Your task to perform on an android device: delete location history Image 0: 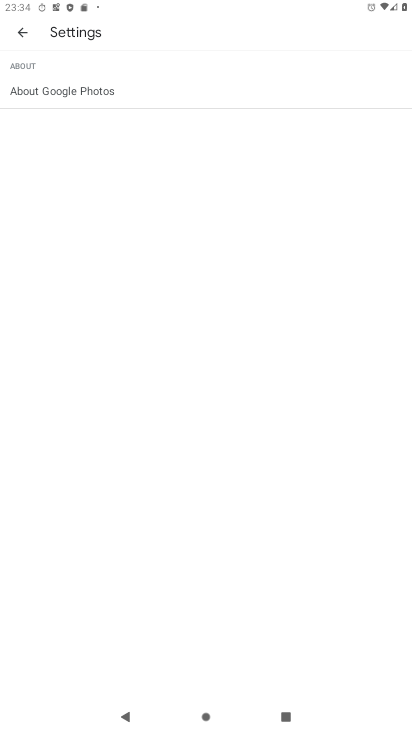
Step 0: press home button
Your task to perform on an android device: delete location history Image 1: 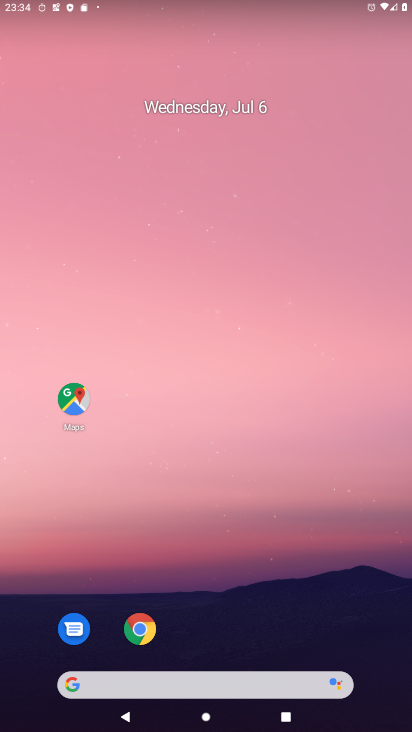
Step 1: drag from (236, 657) to (305, 32)
Your task to perform on an android device: delete location history Image 2: 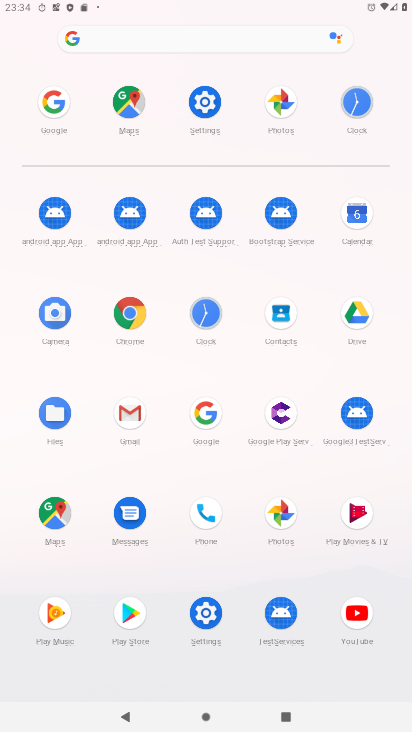
Step 2: click (204, 102)
Your task to perform on an android device: delete location history Image 3: 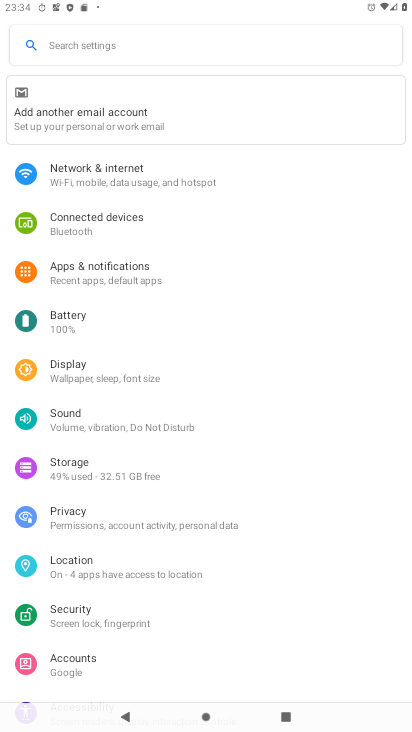
Step 3: click (146, 565)
Your task to perform on an android device: delete location history Image 4: 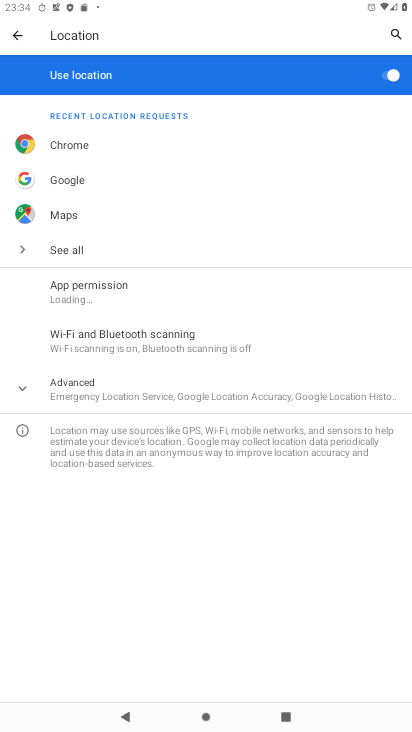
Step 4: click (98, 391)
Your task to perform on an android device: delete location history Image 5: 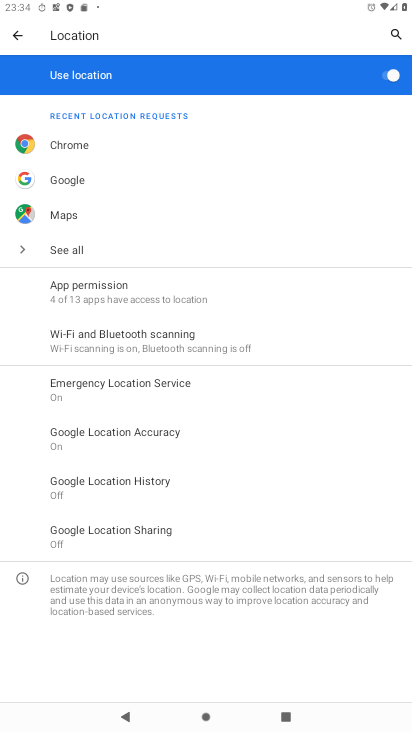
Step 5: click (144, 481)
Your task to perform on an android device: delete location history Image 6: 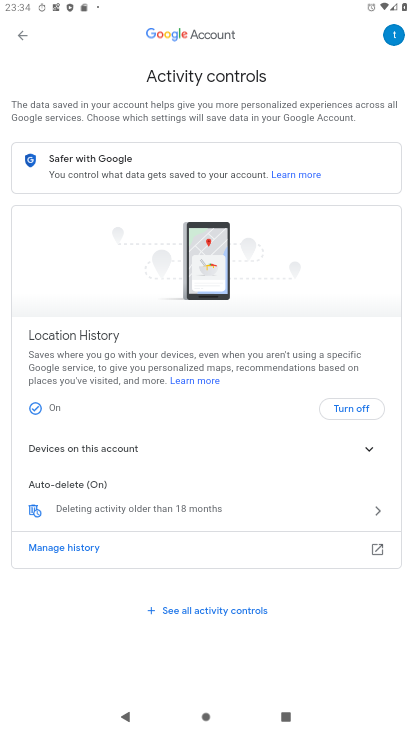
Step 6: click (31, 507)
Your task to perform on an android device: delete location history Image 7: 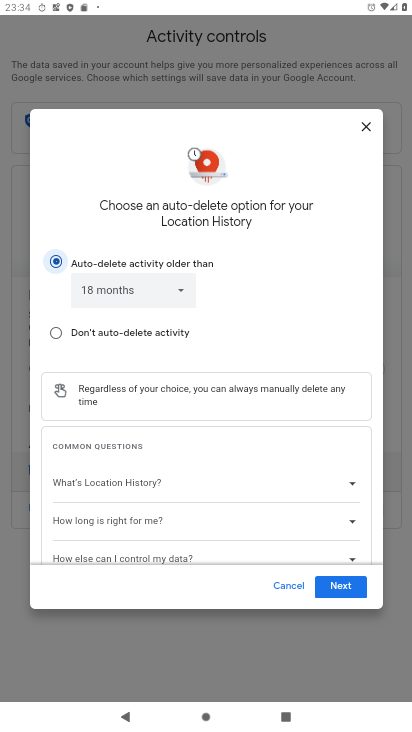
Step 7: click (336, 585)
Your task to perform on an android device: delete location history Image 8: 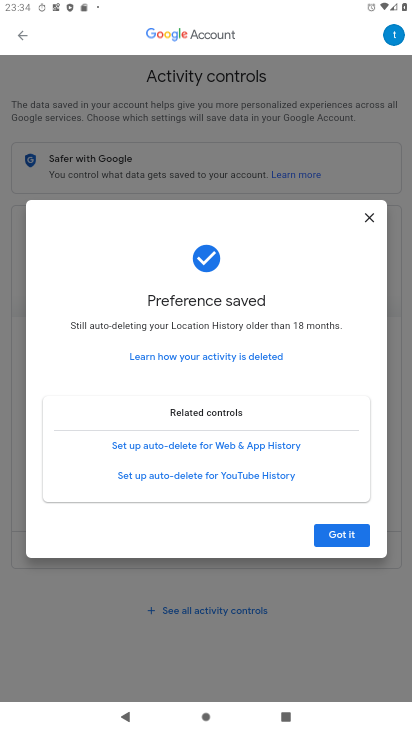
Step 8: click (363, 537)
Your task to perform on an android device: delete location history Image 9: 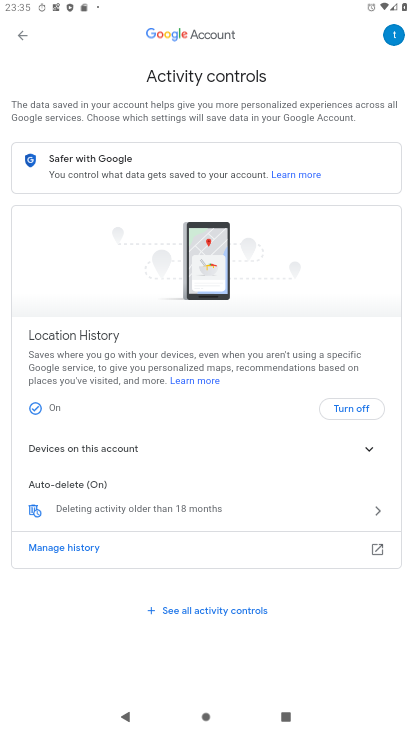
Step 9: task complete